Your task to perform on an android device: Open Google Chrome Image 0: 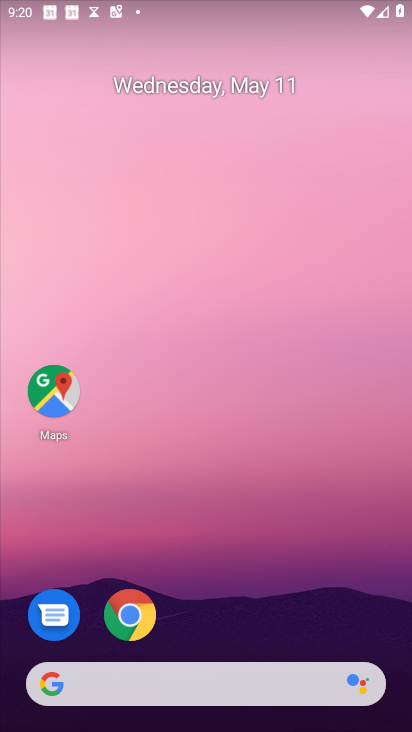
Step 0: press home button
Your task to perform on an android device: Open Google Chrome Image 1: 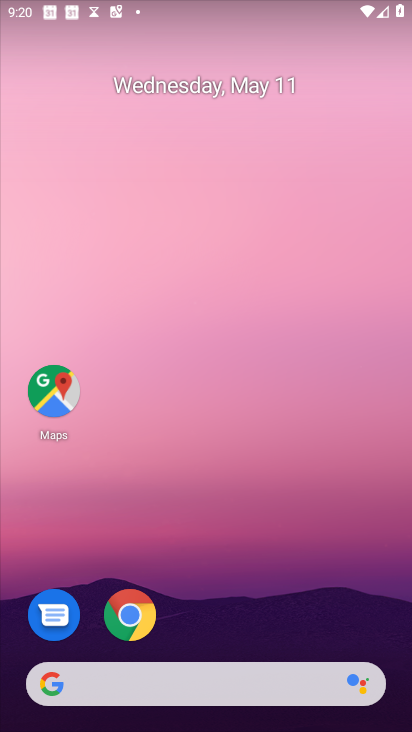
Step 1: click (132, 609)
Your task to perform on an android device: Open Google Chrome Image 2: 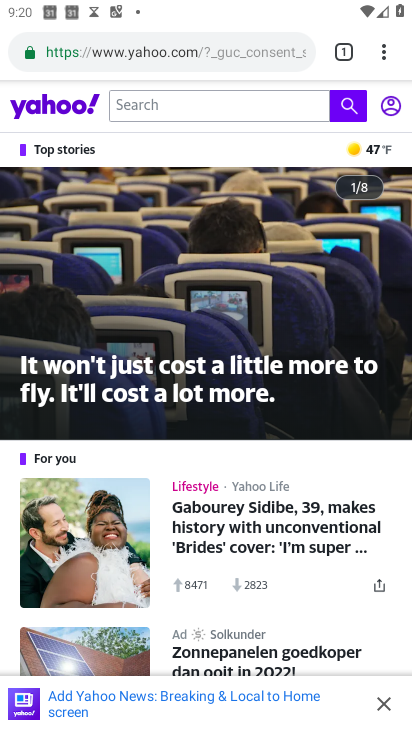
Step 2: click (350, 60)
Your task to perform on an android device: Open Google Chrome Image 3: 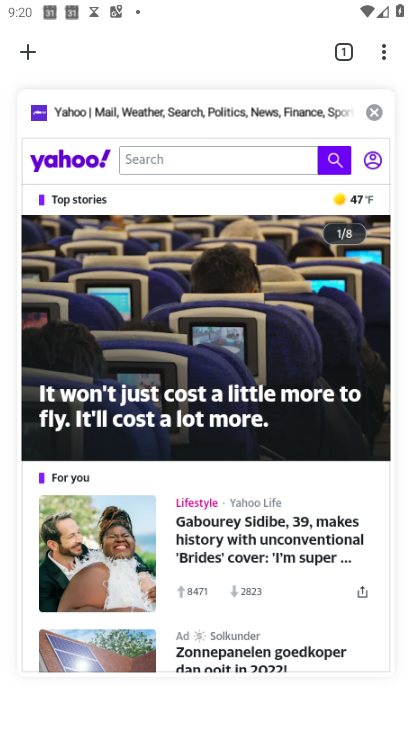
Step 3: click (368, 110)
Your task to perform on an android device: Open Google Chrome Image 4: 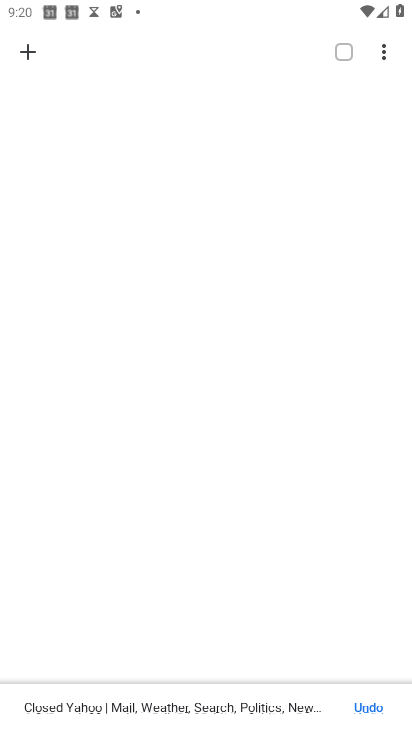
Step 4: click (28, 54)
Your task to perform on an android device: Open Google Chrome Image 5: 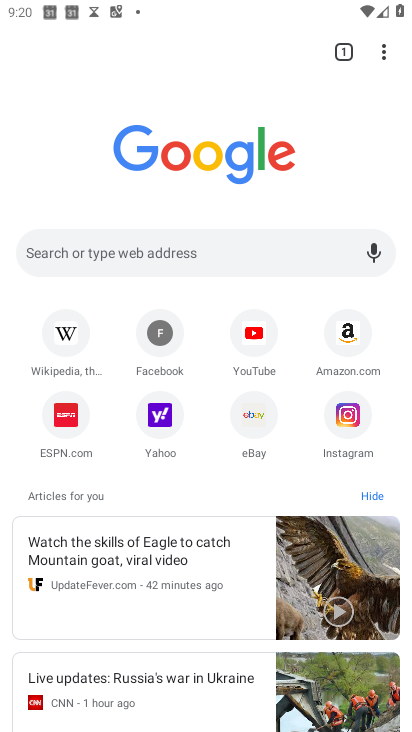
Step 5: task complete